Your task to perform on an android device: toggle javascript in the chrome app Image 0: 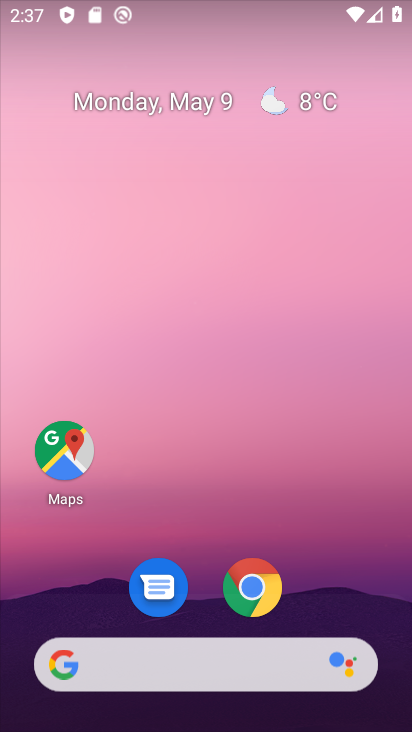
Step 0: click (266, 582)
Your task to perform on an android device: toggle javascript in the chrome app Image 1: 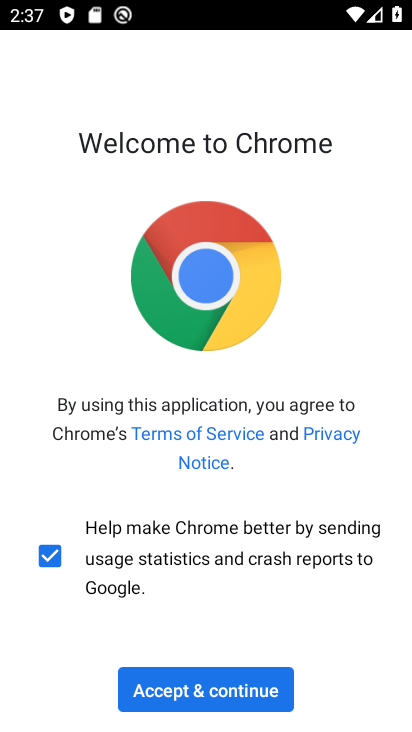
Step 1: click (265, 703)
Your task to perform on an android device: toggle javascript in the chrome app Image 2: 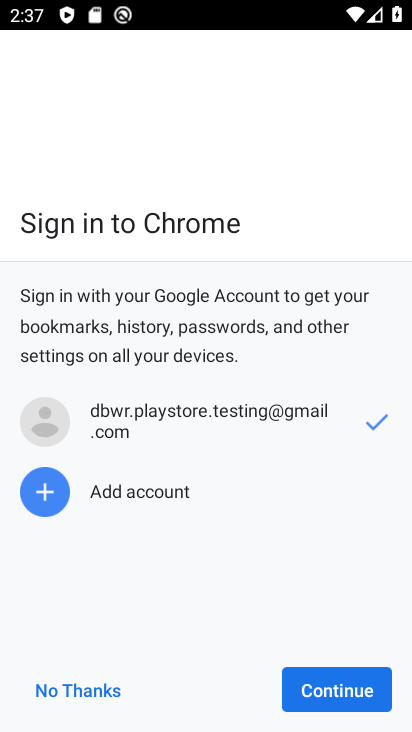
Step 2: click (331, 702)
Your task to perform on an android device: toggle javascript in the chrome app Image 3: 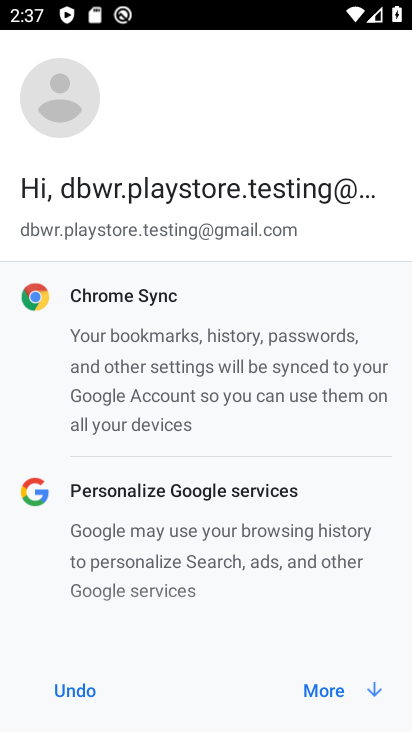
Step 3: click (75, 688)
Your task to perform on an android device: toggle javascript in the chrome app Image 4: 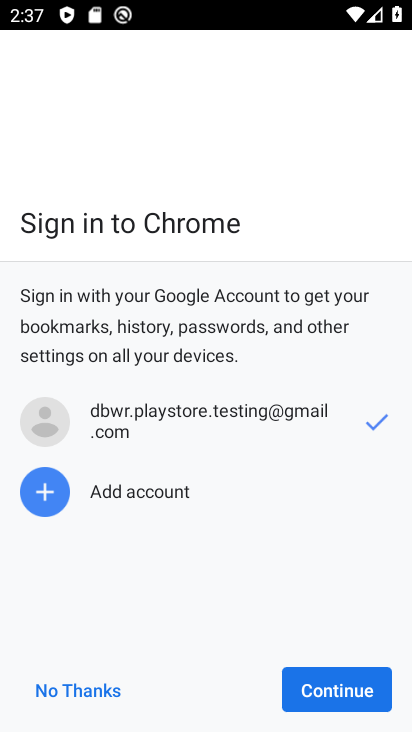
Step 4: click (75, 688)
Your task to perform on an android device: toggle javascript in the chrome app Image 5: 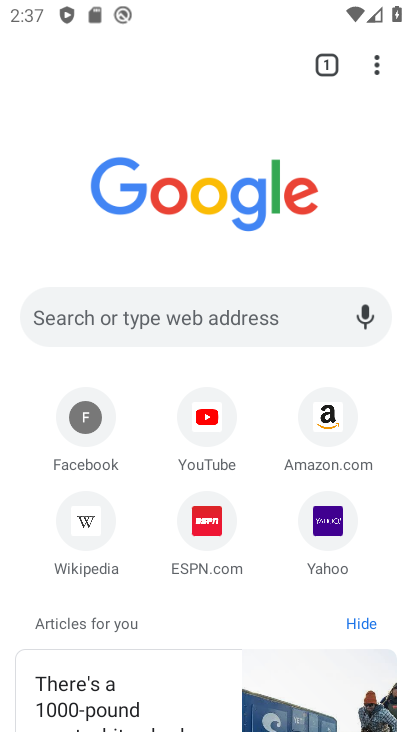
Step 5: click (378, 70)
Your task to perform on an android device: toggle javascript in the chrome app Image 6: 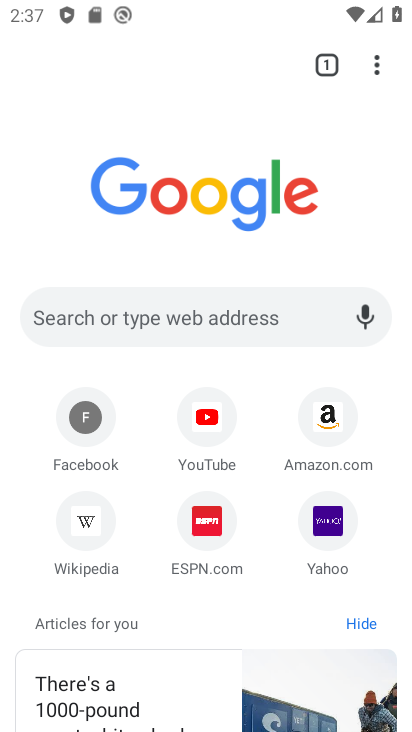
Step 6: click (372, 70)
Your task to perform on an android device: toggle javascript in the chrome app Image 7: 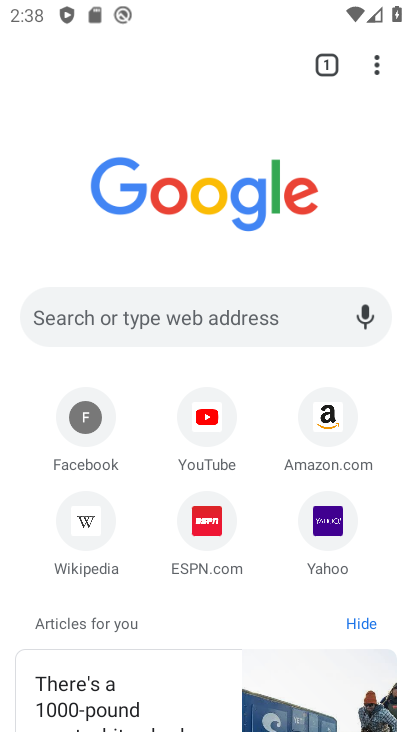
Step 7: click (376, 70)
Your task to perform on an android device: toggle javascript in the chrome app Image 8: 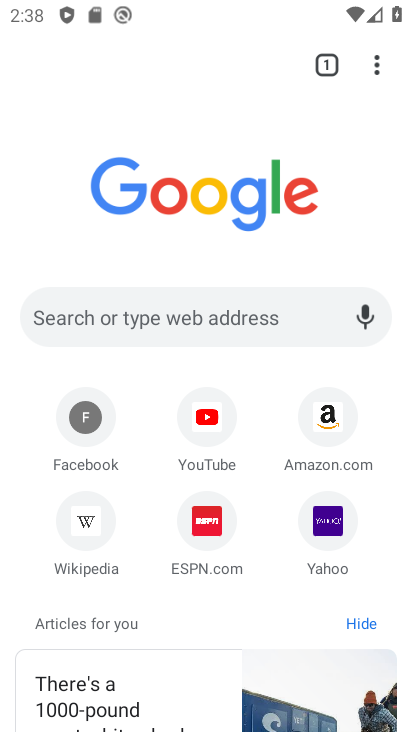
Step 8: click (376, 70)
Your task to perform on an android device: toggle javascript in the chrome app Image 9: 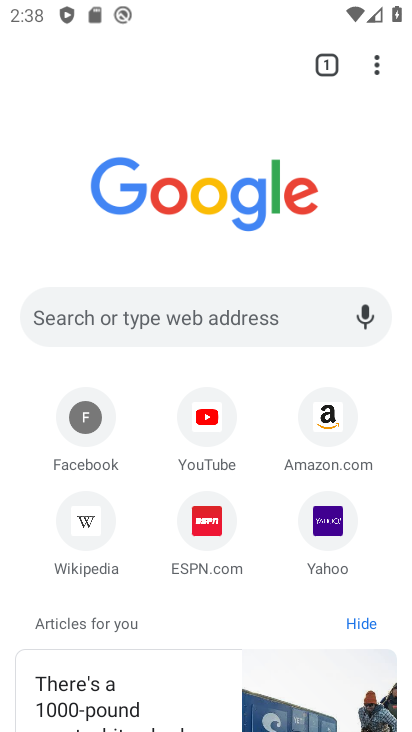
Step 9: click (380, 69)
Your task to perform on an android device: toggle javascript in the chrome app Image 10: 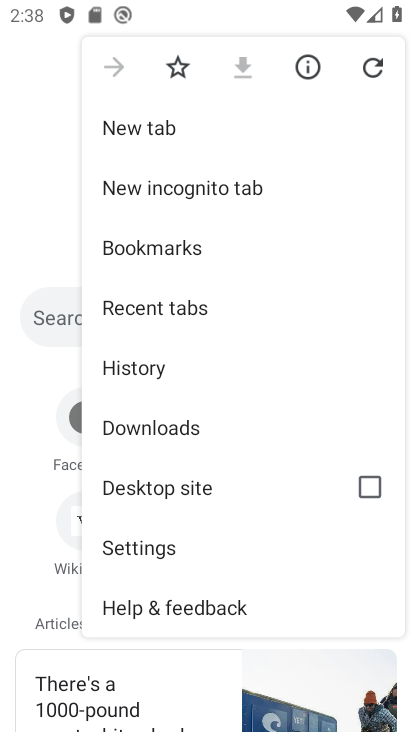
Step 10: click (142, 555)
Your task to perform on an android device: toggle javascript in the chrome app Image 11: 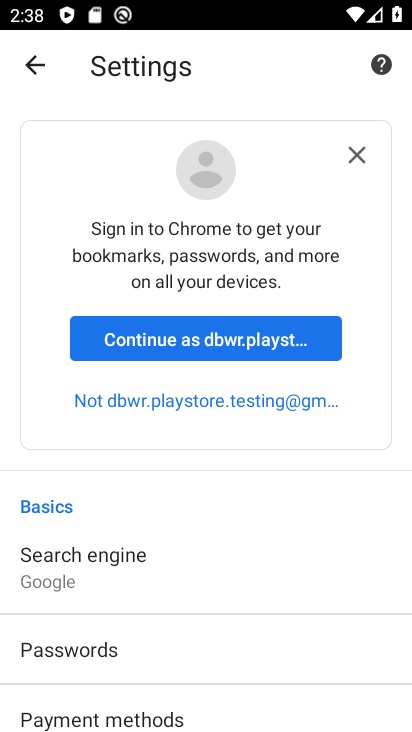
Step 11: drag from (111, 626) to (179, 341)
Your task to perform on an android device: toggle javascript in the chrome app Image 12: 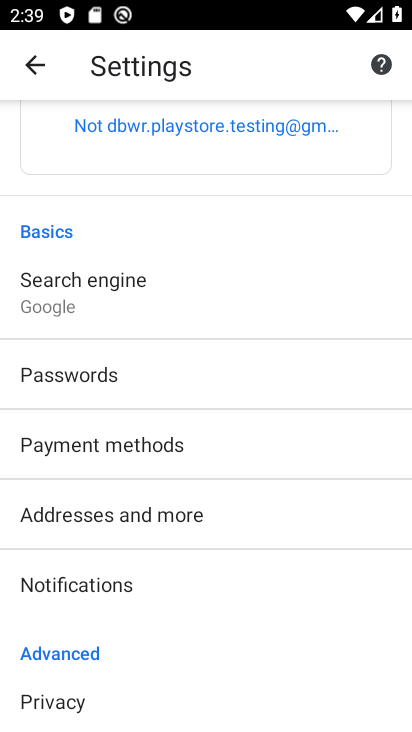
Step 12: drag from (212, 667) to (289, 220)
Your task to perform on an android device: toggle javascript in the chrome app Image 13: 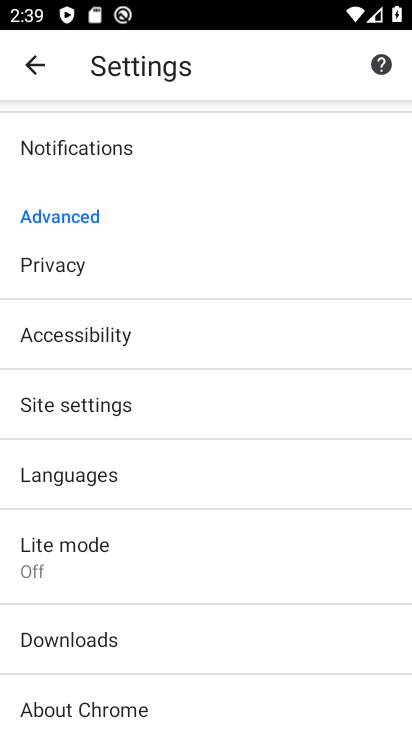
Step 13: click (146, 397)
Your task to perform on an android device: toggle javascript in the chrome app Image 14: 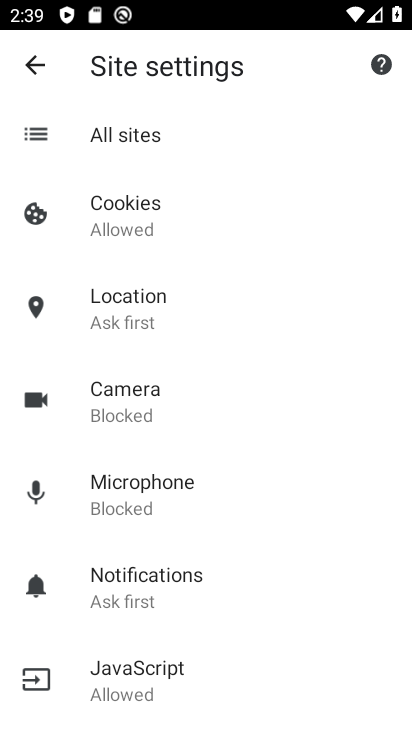
Step 14: drag from (175, 667) to (242, 323)
Your task to perform on an android device: toggle javascript in the chrome app Image 15: 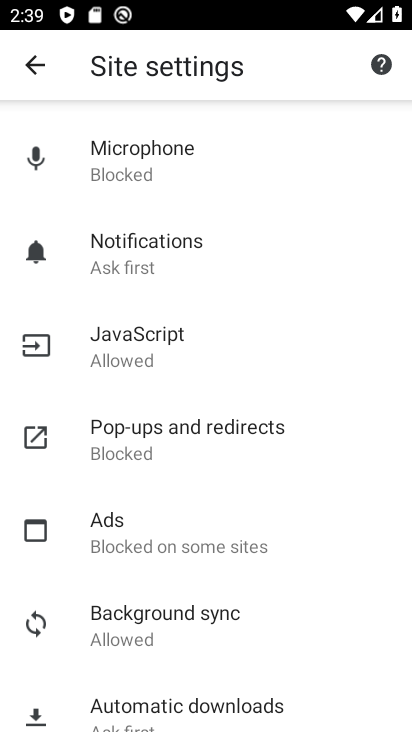
Step 15: click (135, 339)
Your task to perform on an android device: toggle javascript in the chrome app Image 16: 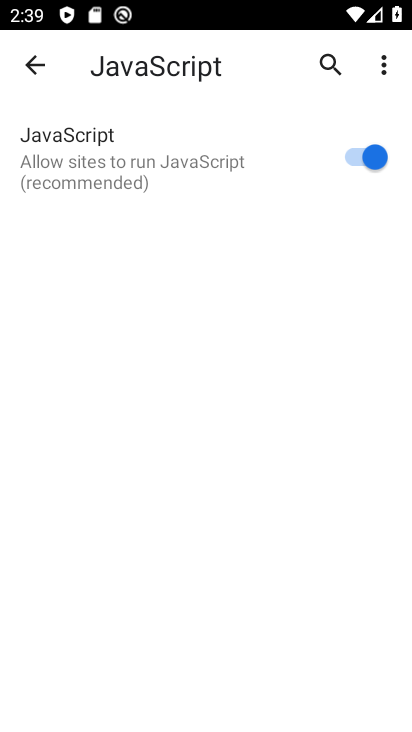
Step 16: click (374, 148)
Your task to perform on an android device: toggle javascript in the chrome app Image 17: 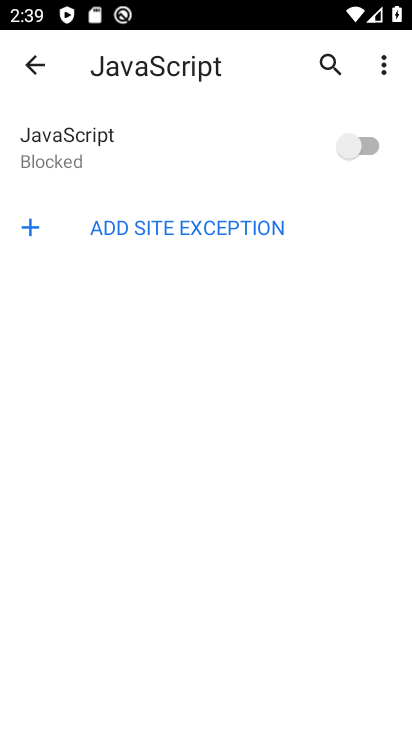
Step 17: task complete